Your task to perform on an android device: open app "YouTube Kids" (install if not already installed) and enter user name: "atmospheric@gmail.com" and password: "raze" Image 0: 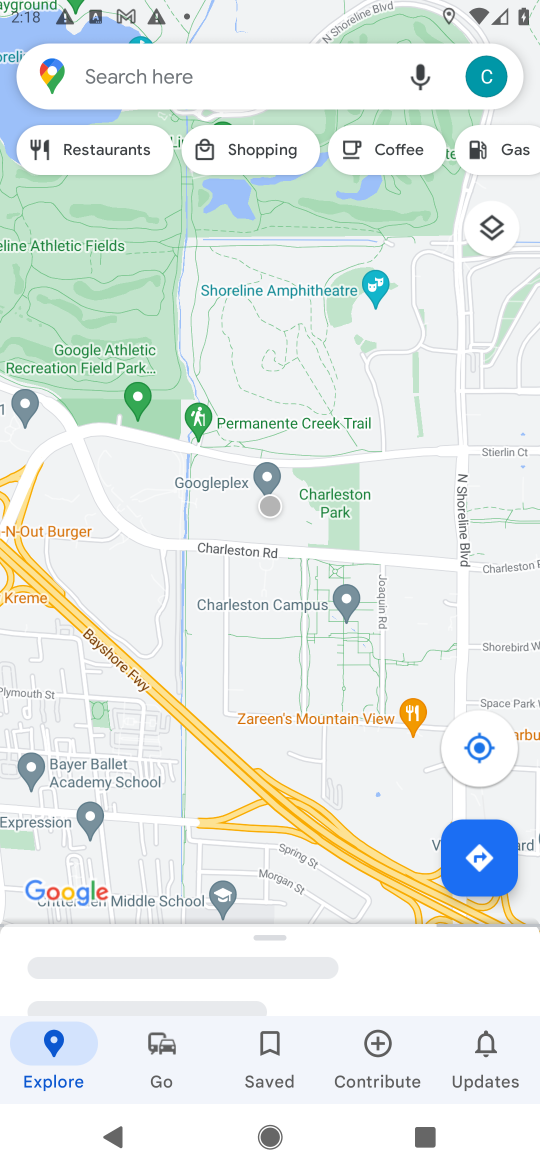
Step 0: press home button
Your task to perform on an android device: open app "YouTube Kids" (install if not already installed) and enter user name: "atmospheric@gmail.com" and password: "raze" Image 1: 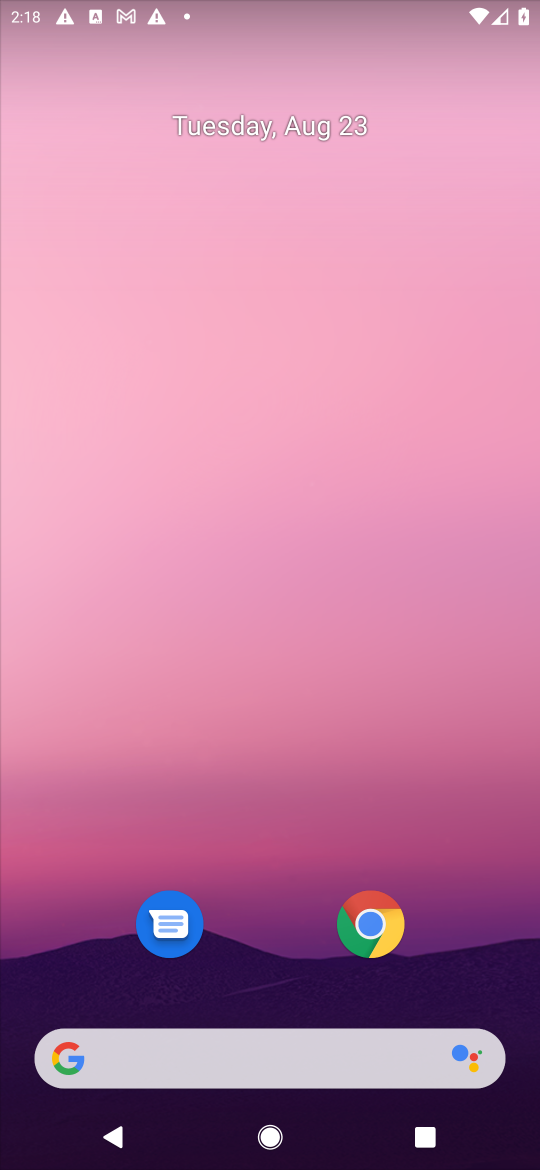
Step 1: drag from (486, 979) to (495, 84)
Your task to perform on an android device: open app "YouTube Kids" (install if not already installed) and enter user name: "atmospheric@gmail.com" and password: "raze" Image 2: 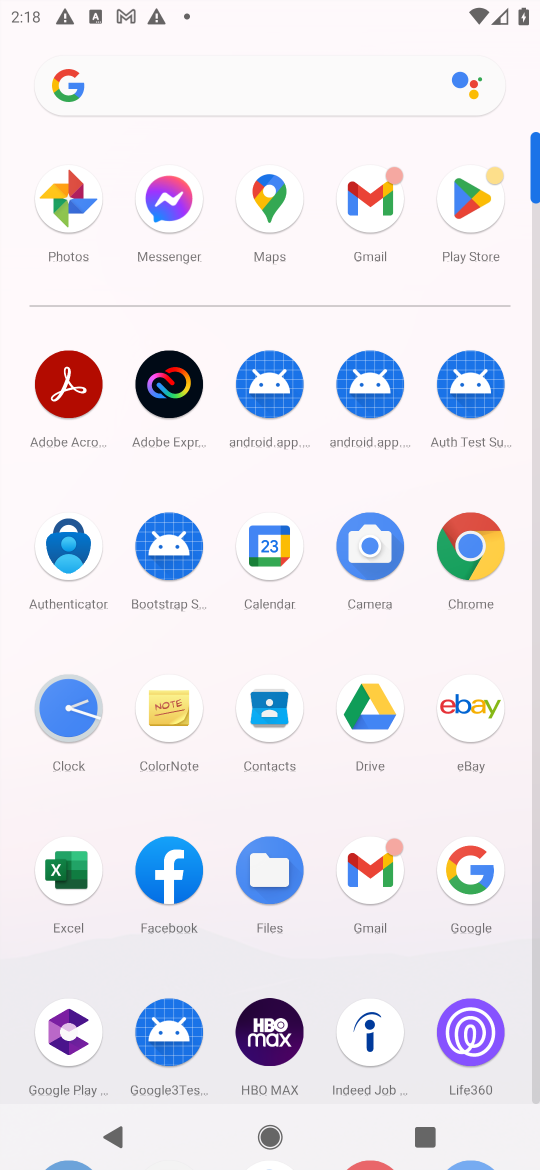
Step 2: click (462, 203)
Your task to perform on an android device: open app "YouTube Kids" (install if not already installed) and enter user name: "atmospheric@gmail.com" and password: "raze" Image 3: 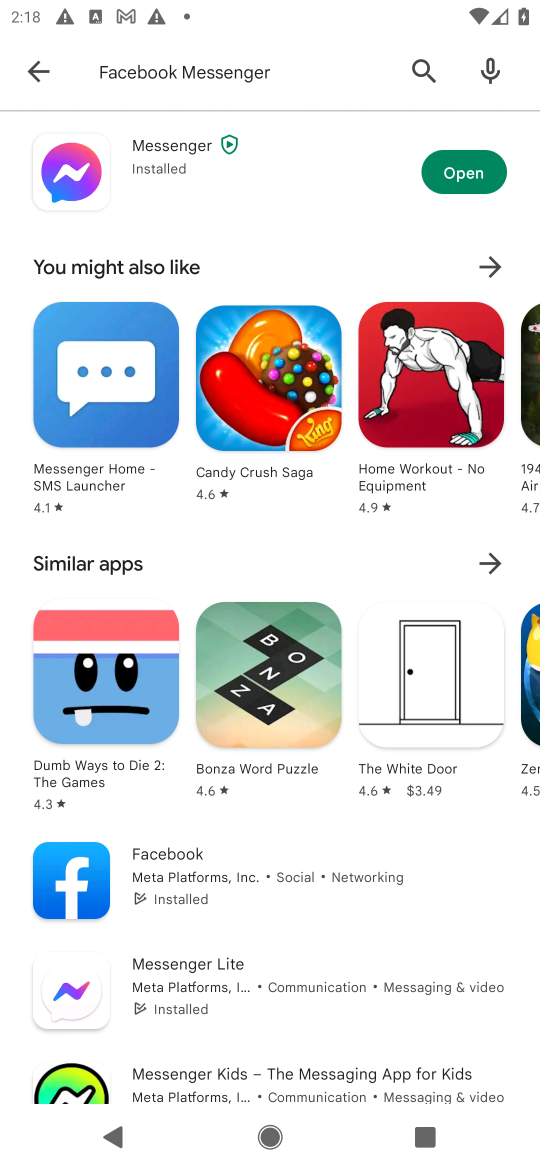
Step 3: press back button
Your task to perform on an android device: open app "YouTube Kids" (install if not already installed) and enter user name: "atmospheric@gmail.com" and password: "raze" Image 4: 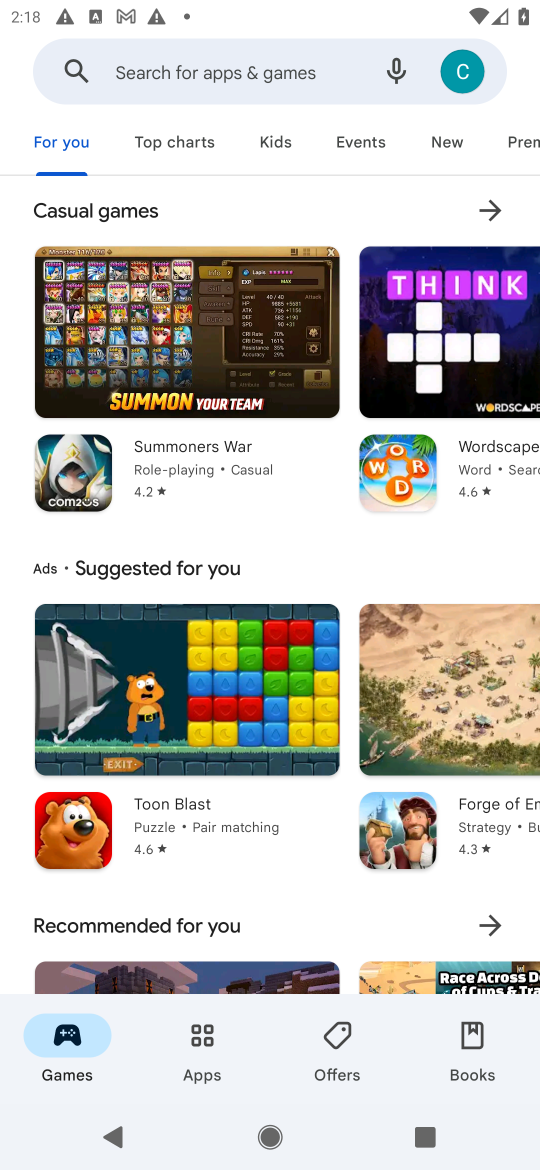
Step 4: click (190, 73)
Your task to perform on an android device: open app "YouTube Kids" (install if not already installed) and enter user name: "atmospheric@gmail.com" and password: "raze" Image 5: 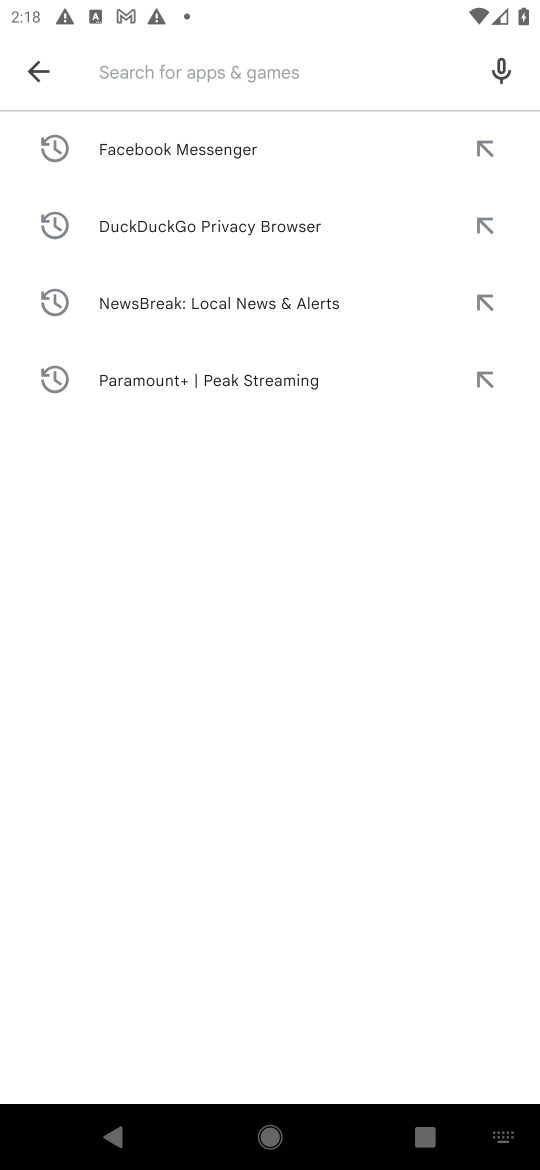
Step 5: type "YouTube Kids"
Your task to perform on an android device: open app "YouTube Kids" (install if not already installed) and enter user name: "atmospheric@gmail.com" and password: "raze" Image 6: 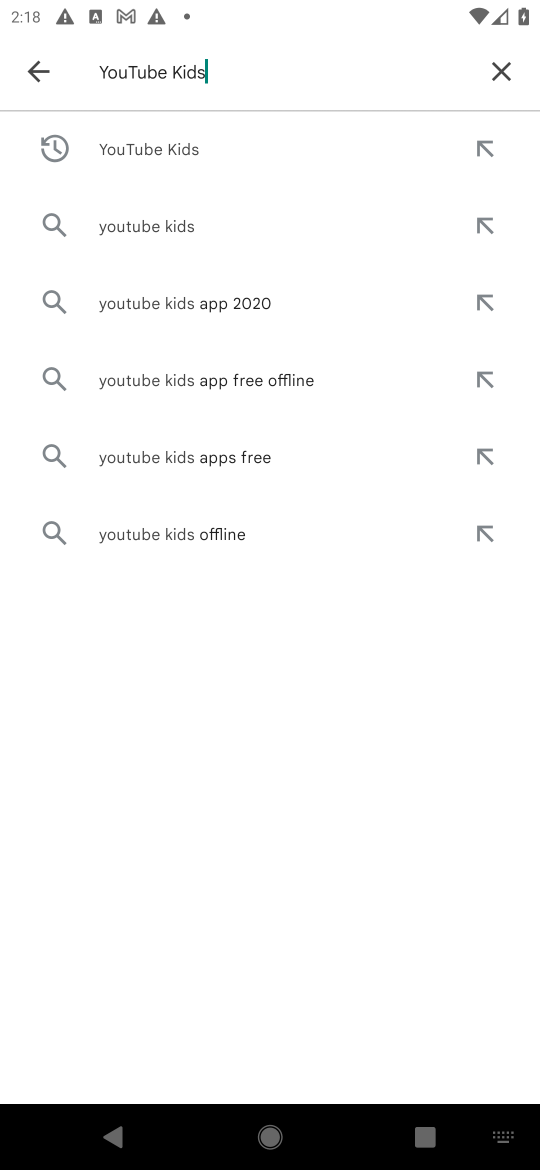
Step 6: press enter
Your task to perform on an android device: open app "YouTube Kids" (install if not already installed) and enter user name: "atmospheric@gmail.com" and password: "raze" Image 7: 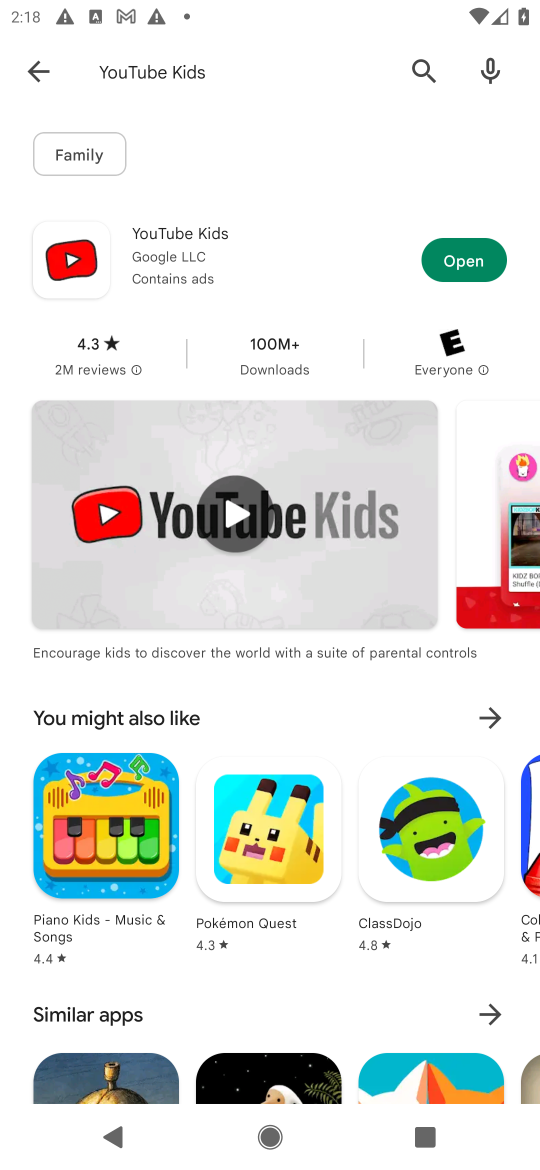
Step 7: click (467, 254)
Your task to perform on an android device: open app "YouTube Kids" (install if not already installed) and enter user name: "atmospheric@gmail.com" and password: "raze" Image 8: 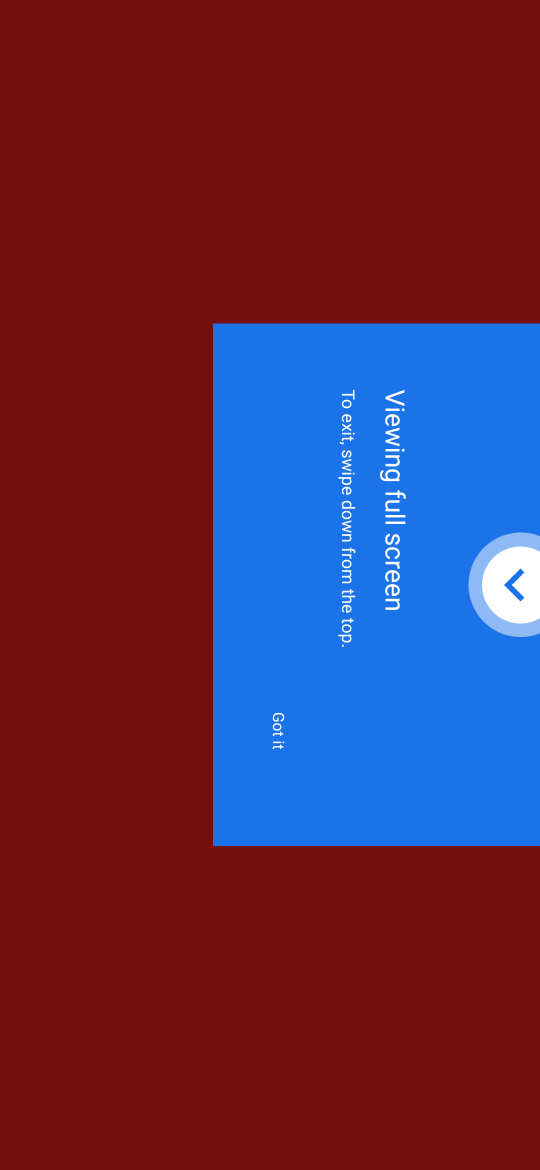
Step 8: click (279, 730)
Your task to perform on an android device: open app "YouTube Kids" (install if not already installed) and enter user name: "atmospheric@gmail.com" and password: "raze" Image 9: 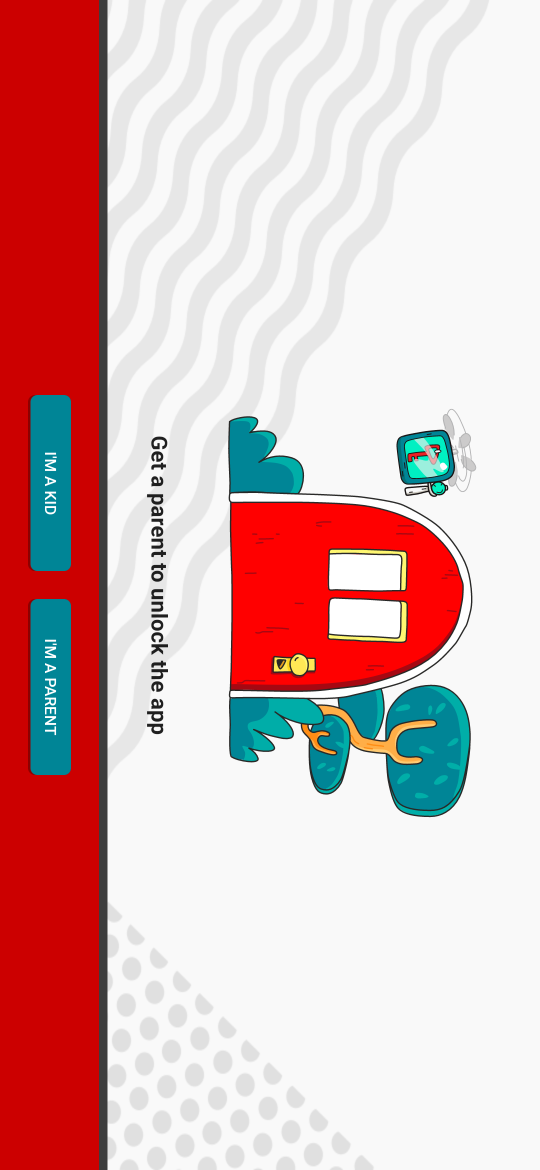
Step 9: task complete